Your task to perform on an android device: What is the recent news? Image 0: 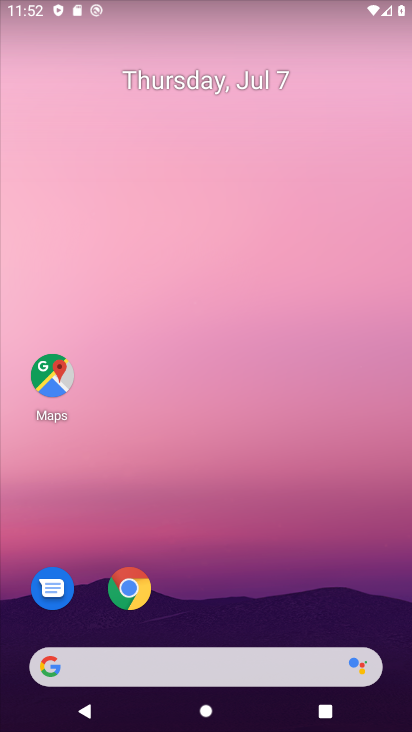
Step 0: drag from (201, 496) to (156, 169)
Your task to perform on an android device: What is the recent news? Image 1: 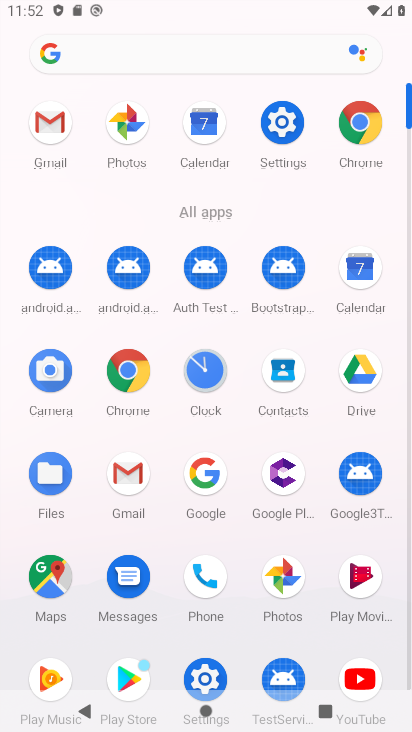
Step 1: click (200, 471)
Your task to perform on an android device: What is the recent news? Image 2: 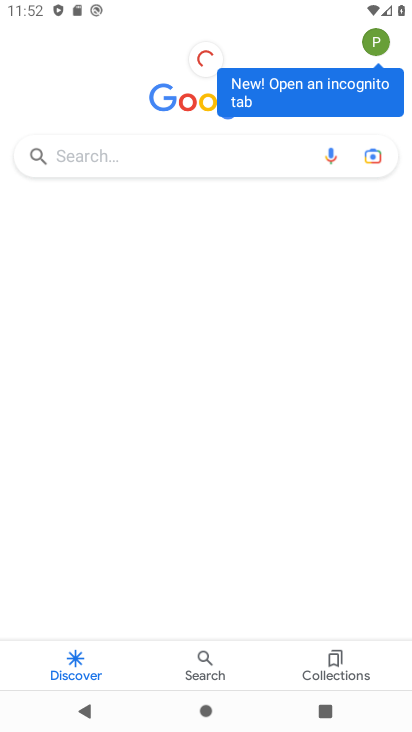
Step 2: click (203, 157)
Your task to perform on an android device: What is the recent news? Image 3: 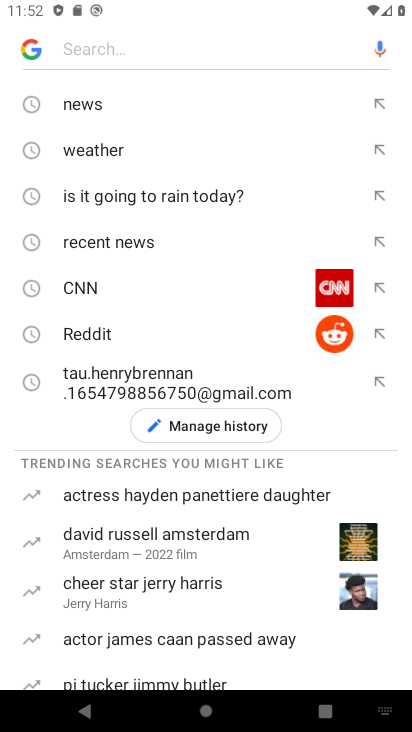
Step 3: click (115, 237)
Your task to perform on an android device: What is the recent news? Image 4: 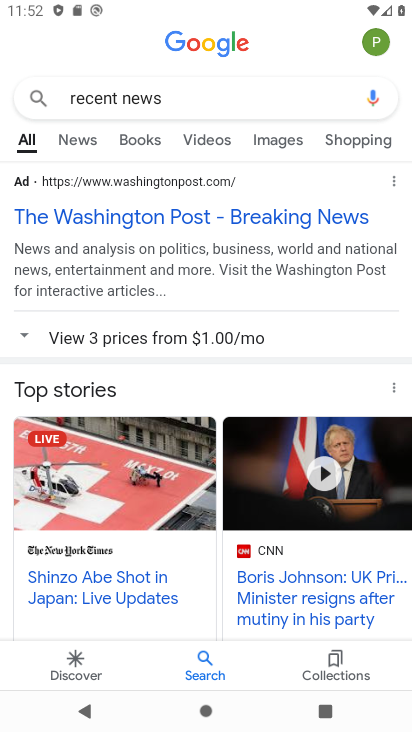
Step 4: task complete